Your task to perform on an android device: Open sound settings Image 0: 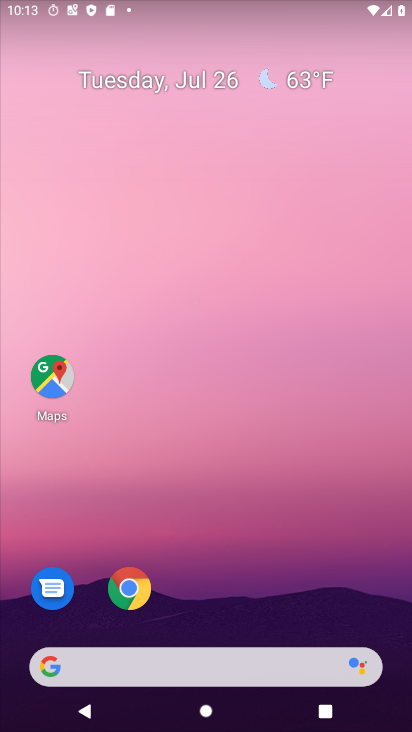
Step 0: drag from (227, 629) to (220, 4)
Your task to perform on an android device: Open sound settings Image 1: 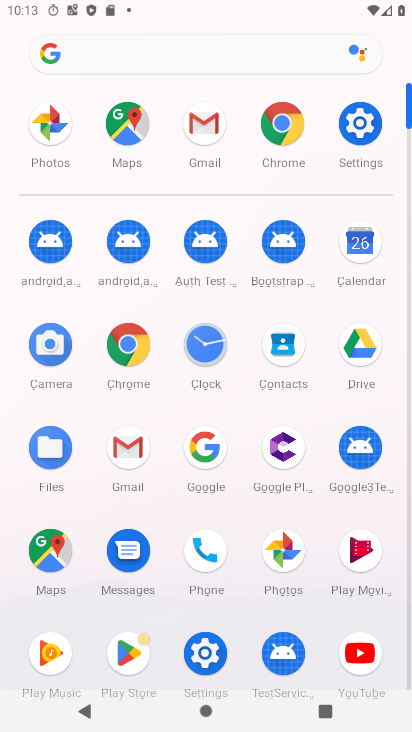
Step 1: click (361, 137)
Your task to perform on an android device: Open sound settings Image 2: 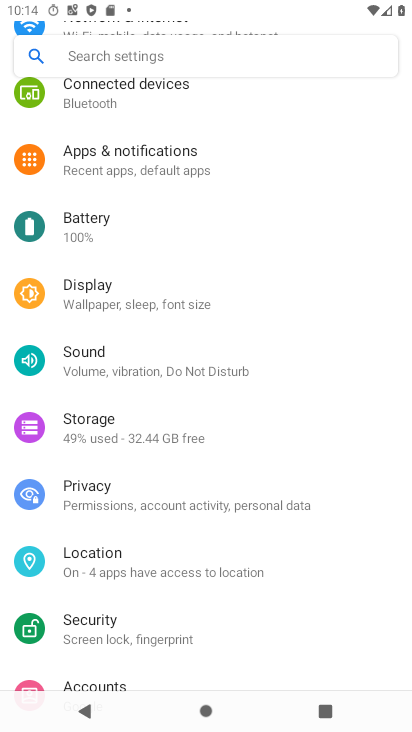
Step 2: click (240, 385)
Your task to perform on an android device: Open sound settings Image 3: 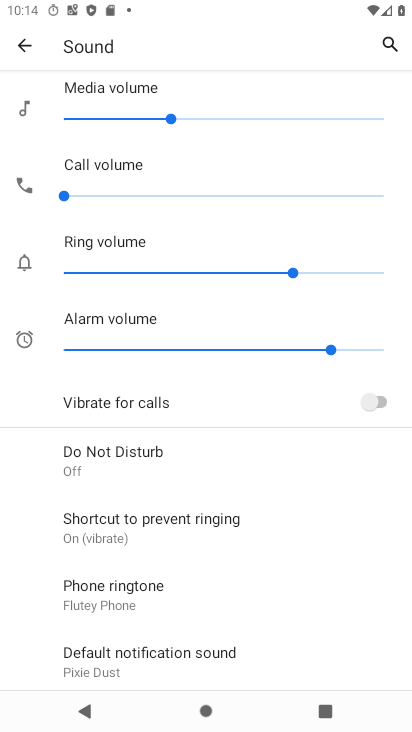
Step 3: task complete